Your task to perform on an android device: open a bookmark in the chrome app Image 0: 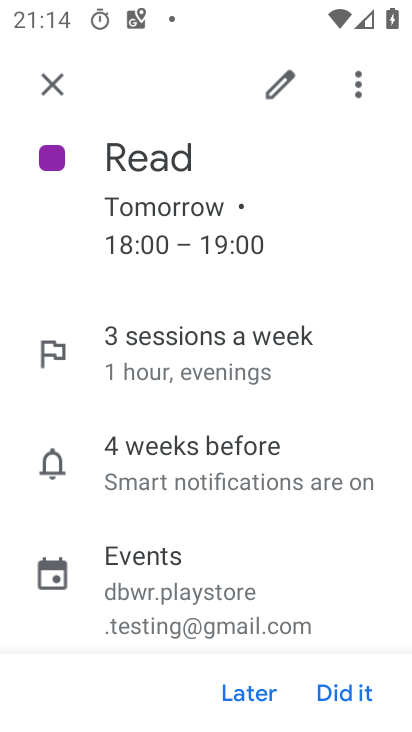
Step 0: press home button
Your task to perform on an android device: open a bookmark in the chrome app Image 1: 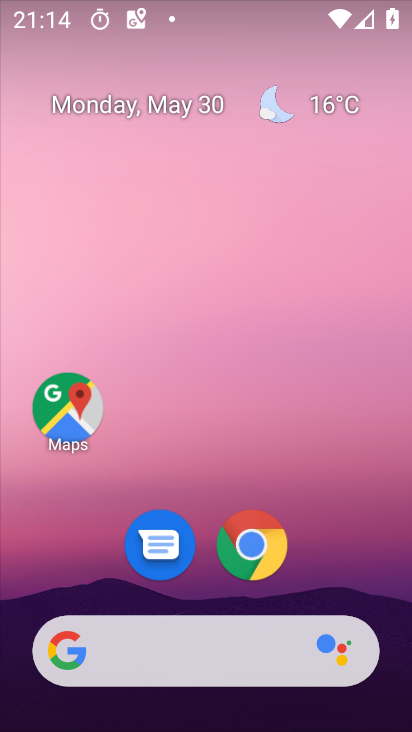
Step 1: click (248, 547)
Your task to perform on an android device: open a bookmark in the chrome app Image 2: 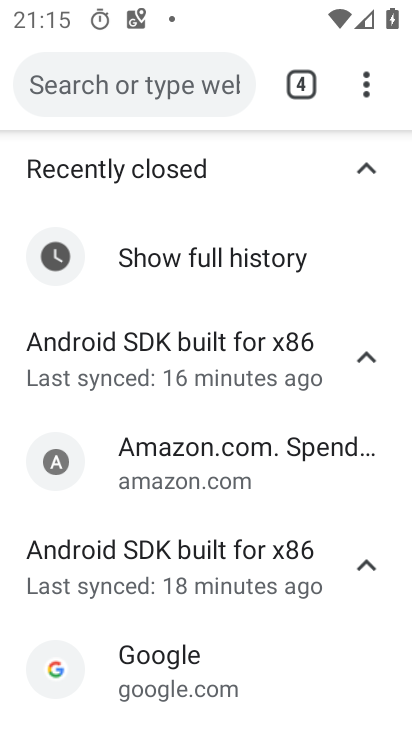
Step 2: click (372, 82)
Your task to perform on an android device: open a bookmark in the chrome app Image 3: 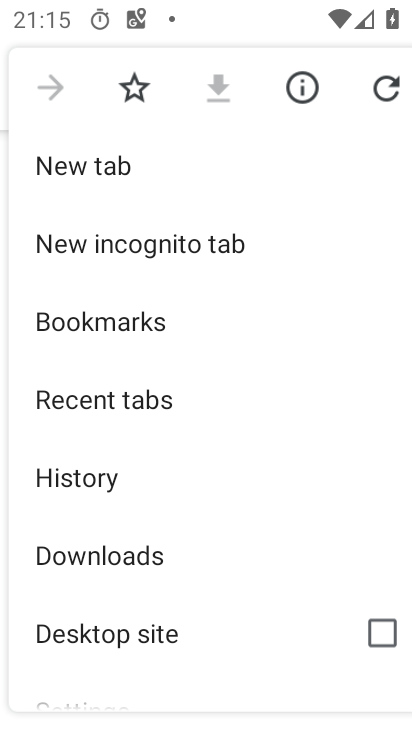
Step 3: click (121, 322)
Your task to perform on an android device: open a bookmark in the chrome app Image 4: 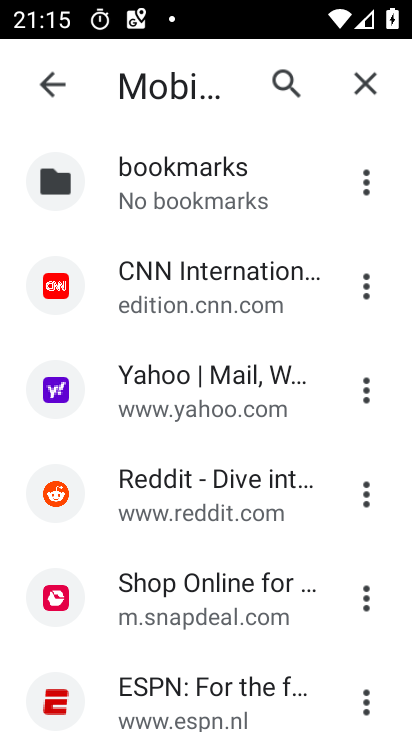
Step 4: click (200, 288)
Your task to perform on an android device: open a bookmark in the chrome app Image 5: 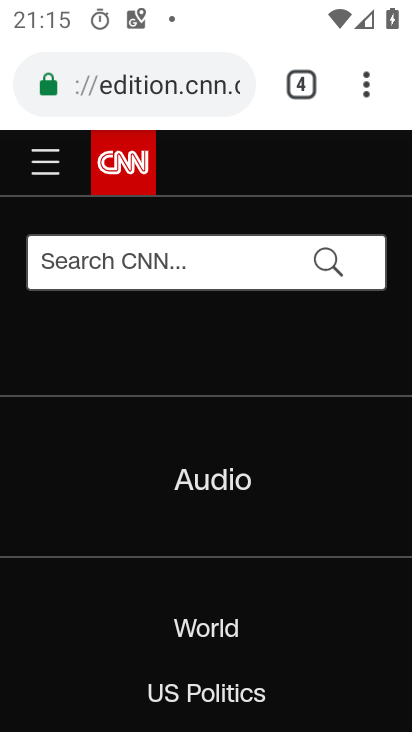
Step 5: task complete